Your task to perform on an android device: Go to location settings Image 0: 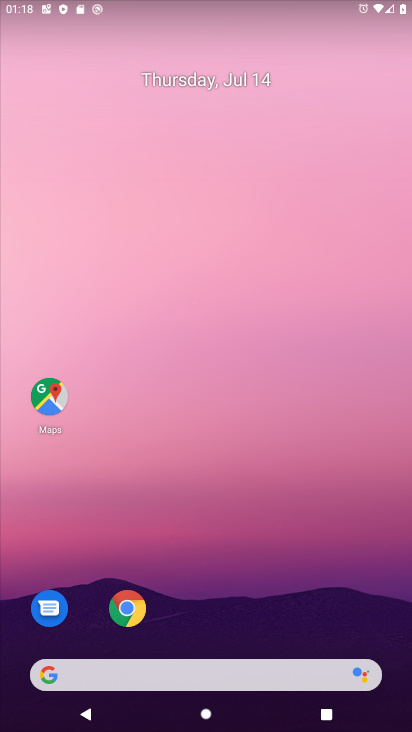
Step 0: press home button
Your task to perform on an android device: Go to location settings Image 1: 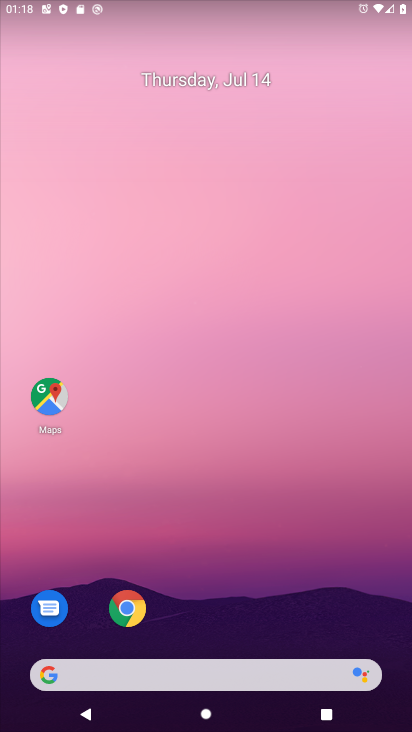
Step 1: drag from (409, 611) to (335, 4)
Your task to perform on an android device: Go to location settings Image 2: 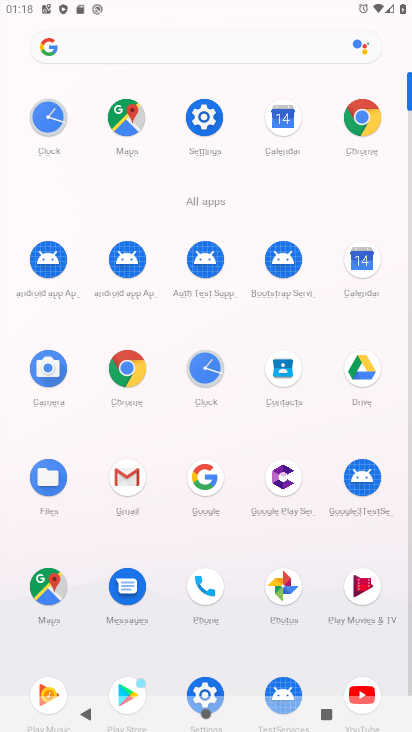
Step 2: click (207, 130)
Your task to perform on an android device: Go to location settings Image 3: 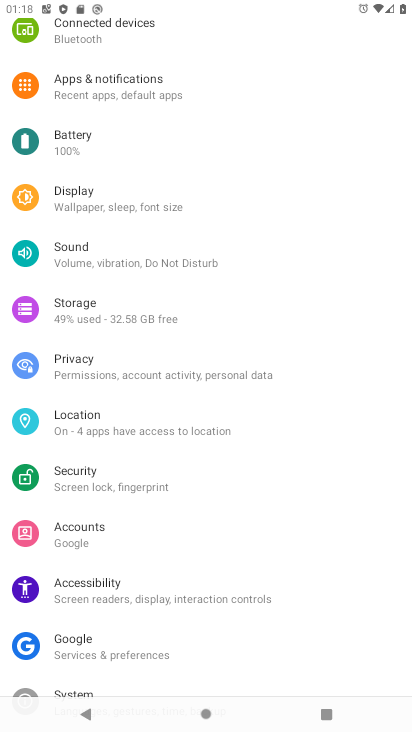
Step 3: click (100, 440)
Your task to perform on an android device: Go to location settings Image 4: 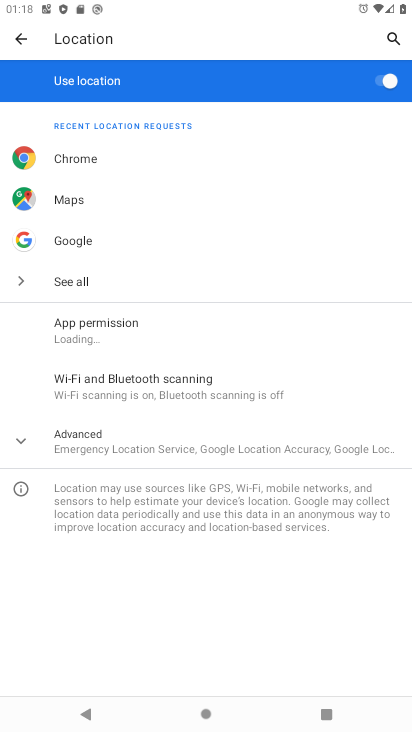
Step 4: task complete